Your task to perform on an android device: turn off data saver in the chrome app Image 0: 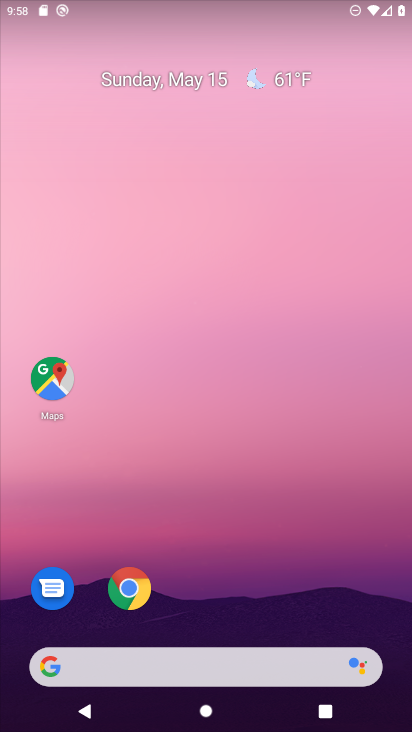
Step 0: drag from (221, 607) to (230, 524)
Your task to perform on an android device: turn off data saver in the chrome app Image 1: 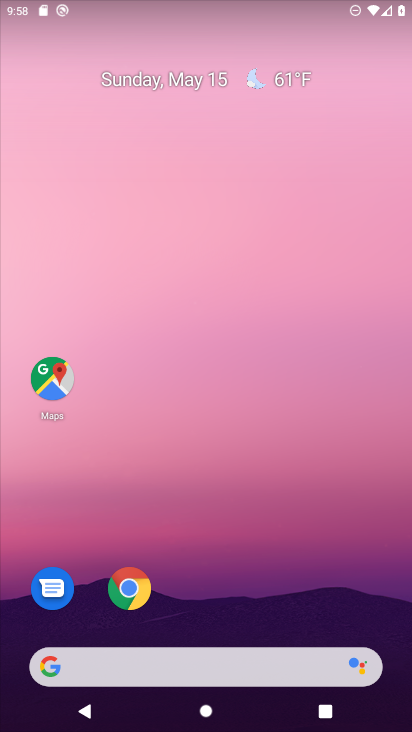
Step 1: click (135, 594)
Your task to perform on an android device: turn off data saver in the chrome app Image 2: 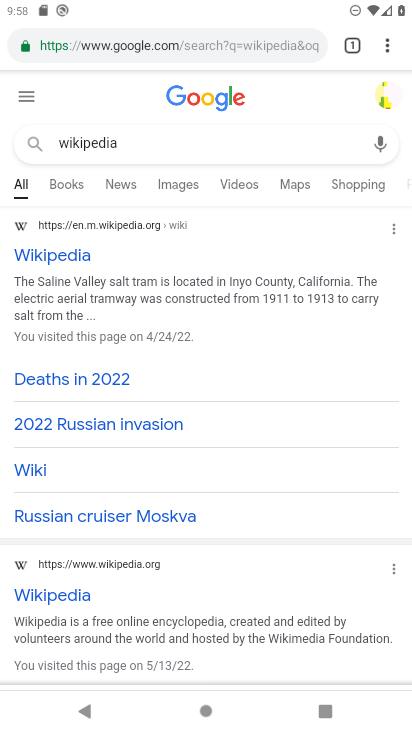
Step 2: click (390, 41)
Your task to perform on an android device: turn off data saver in the chrome app Image 3: 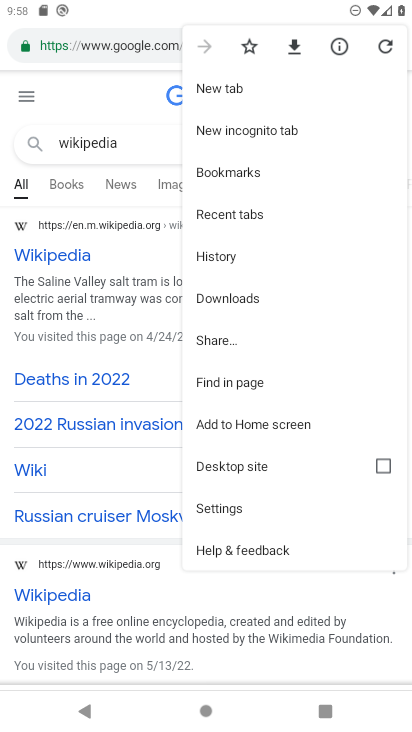
Step 3: click (227, 506)
Your task to perform on an android device: turn off data saver in the chrome app Image 4: 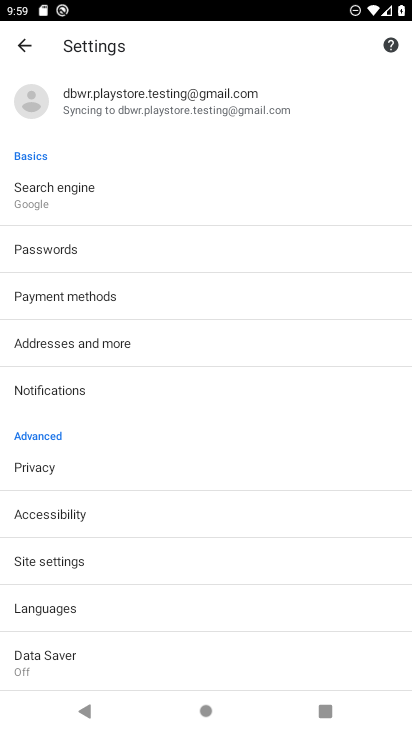
Step 4: click (72, 656)
Your task to perform on an android device: turn off data saver in the chrome app Image 5: 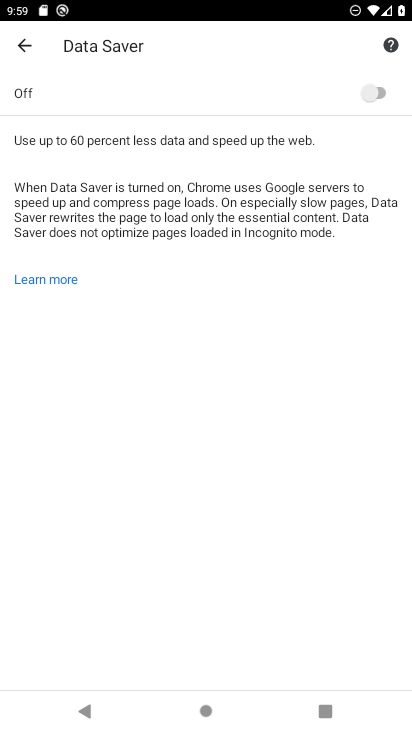
Step 5: task complete